Your task to perform on an android device: stop showing notifications on the lock screen Image 0: 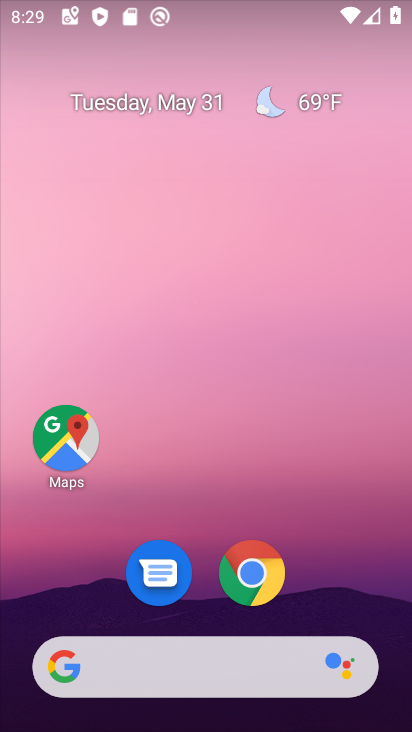
Step 0: drag from (187, 600) to (245, 87)
Your task to perform on an android device: stop showing notifications on the lock screen Image 1: 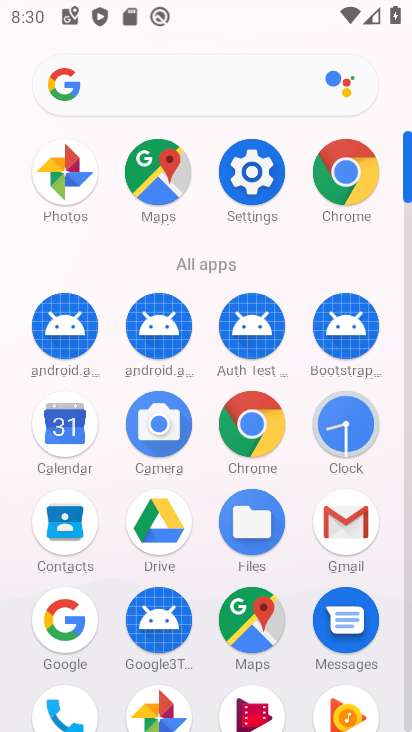
Step 1: click (262, 170)
Your task to perform on an android device: stop showing notifications on the lock screen Image 2: 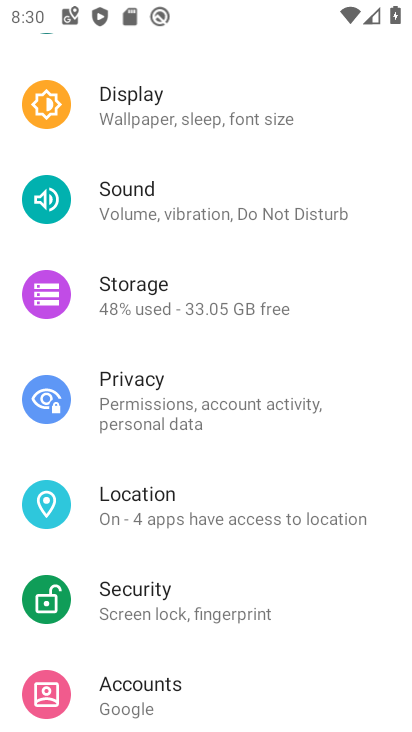
Step 2: drag from (209, 200) to (158, 608)
Your task to perform on an android device: stop showing notifications on the lock screen Image 3: 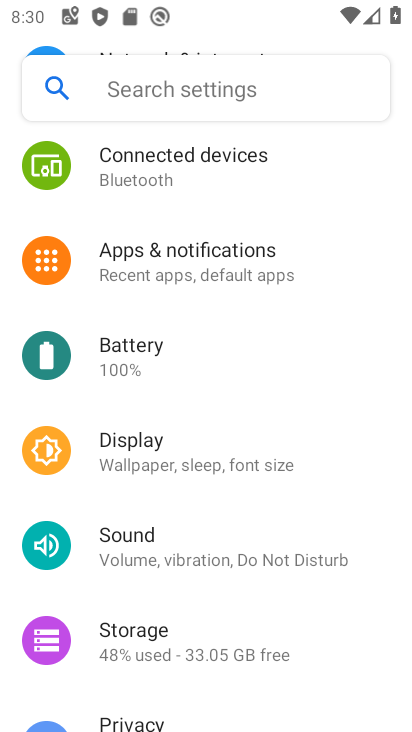
Step 3: click (203, 277)
Your task to perform on an android device: stop showing notifications on the lock screen Image 4: 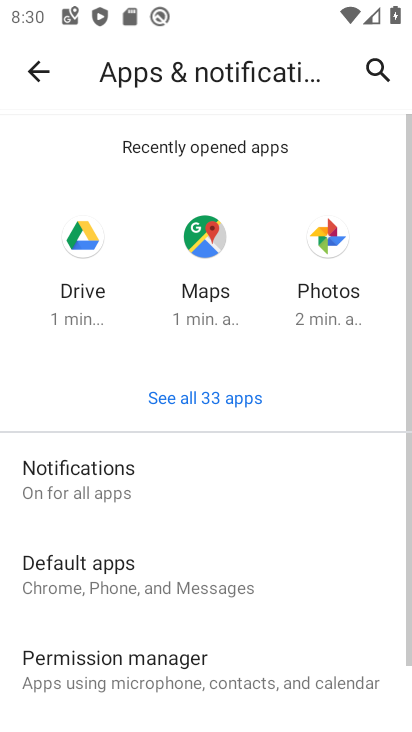
Step 4: click (119, 492)
Your task to perform on an android device: stop showing notifications on the lock screen Image 5: 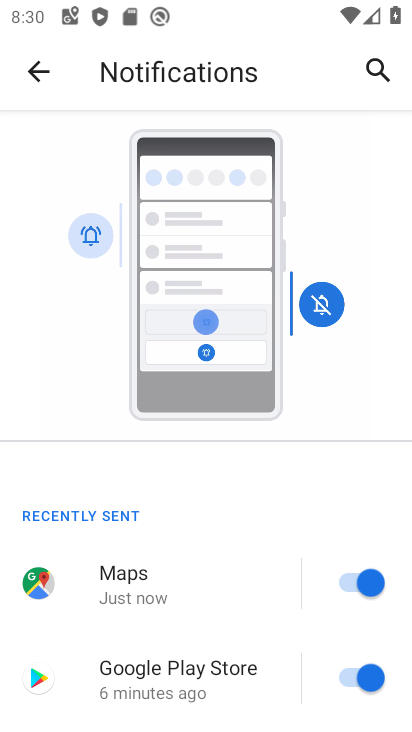
Step 5: drag from (143, 639) to (179, 445)
Your task to perform on an android device: stop showing notifications on the lock screen Image 6: 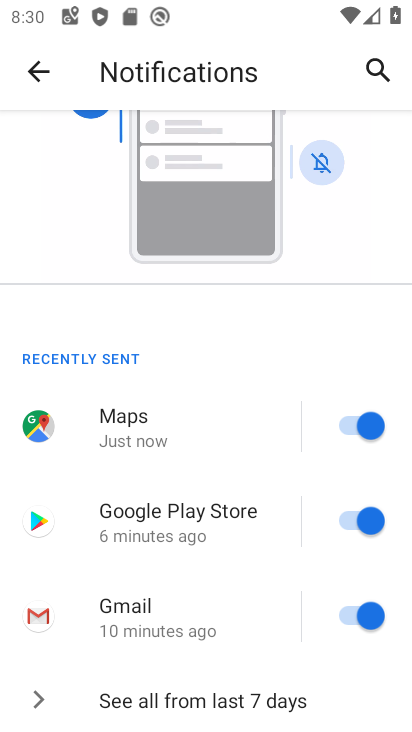
Step 6: drag from (161, 658) to (194, 416)
Your task to perform on an android device: stop showing notifications on the lock screen Image 7: 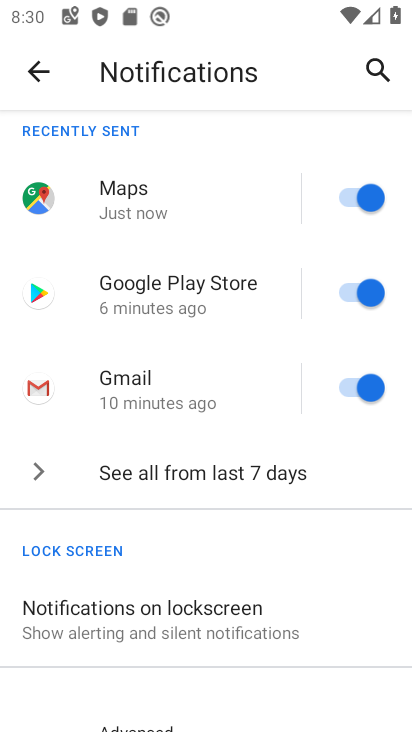
Step 7: click (201, 624)
Your task to perform on an android device: stop showing notifications on the lock screen Image 8: 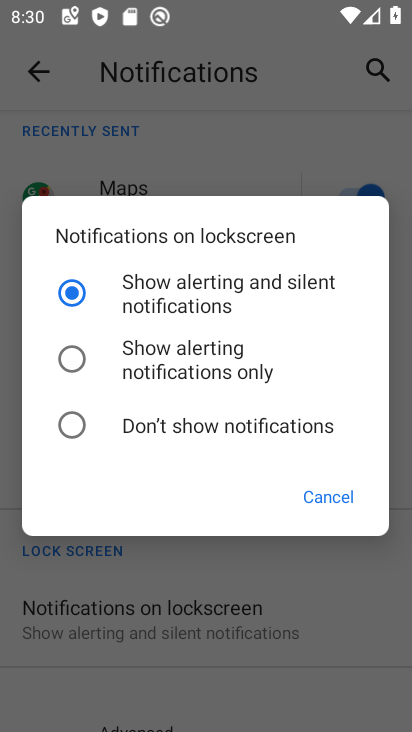
Step 8: click (186, 433)
Your task to perform on an android device: stop showing notifications on the lock screen Image 9: 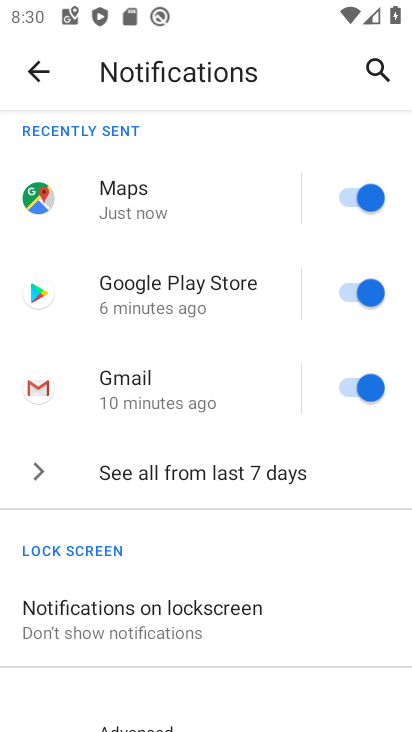
Step 9: task complete